Your task to perform on an android device: Open the map Image 0: 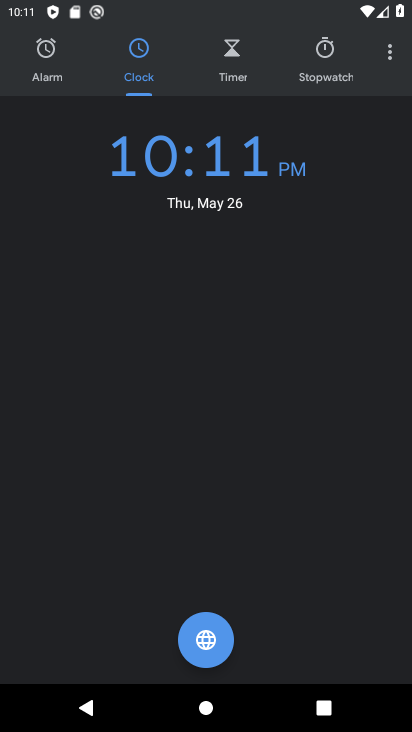
Step 0: press home button
Your task to perform on an android device: Open the map Image 1: 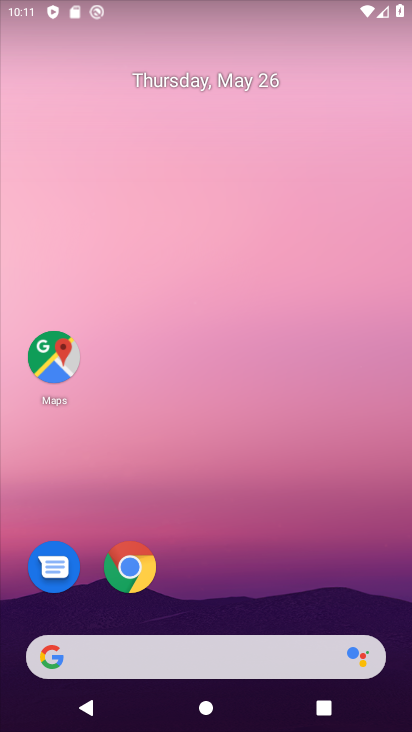
Step 1: click (55, 376)
Your task to perform on an android device: Open the map Image 2: 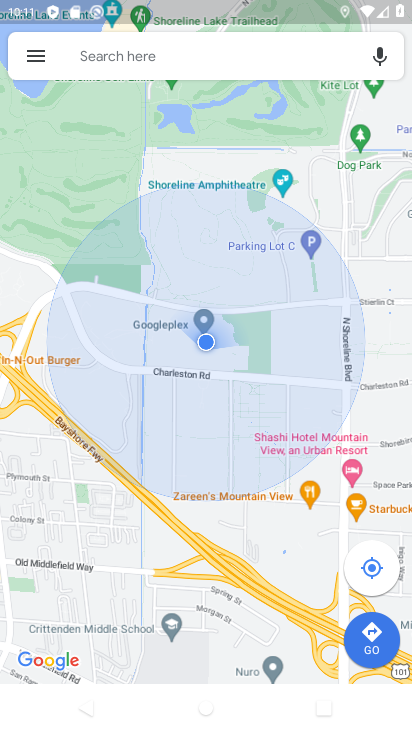
Step 2: task complete